Your task to perform on an android device: check out phone information Image 0: 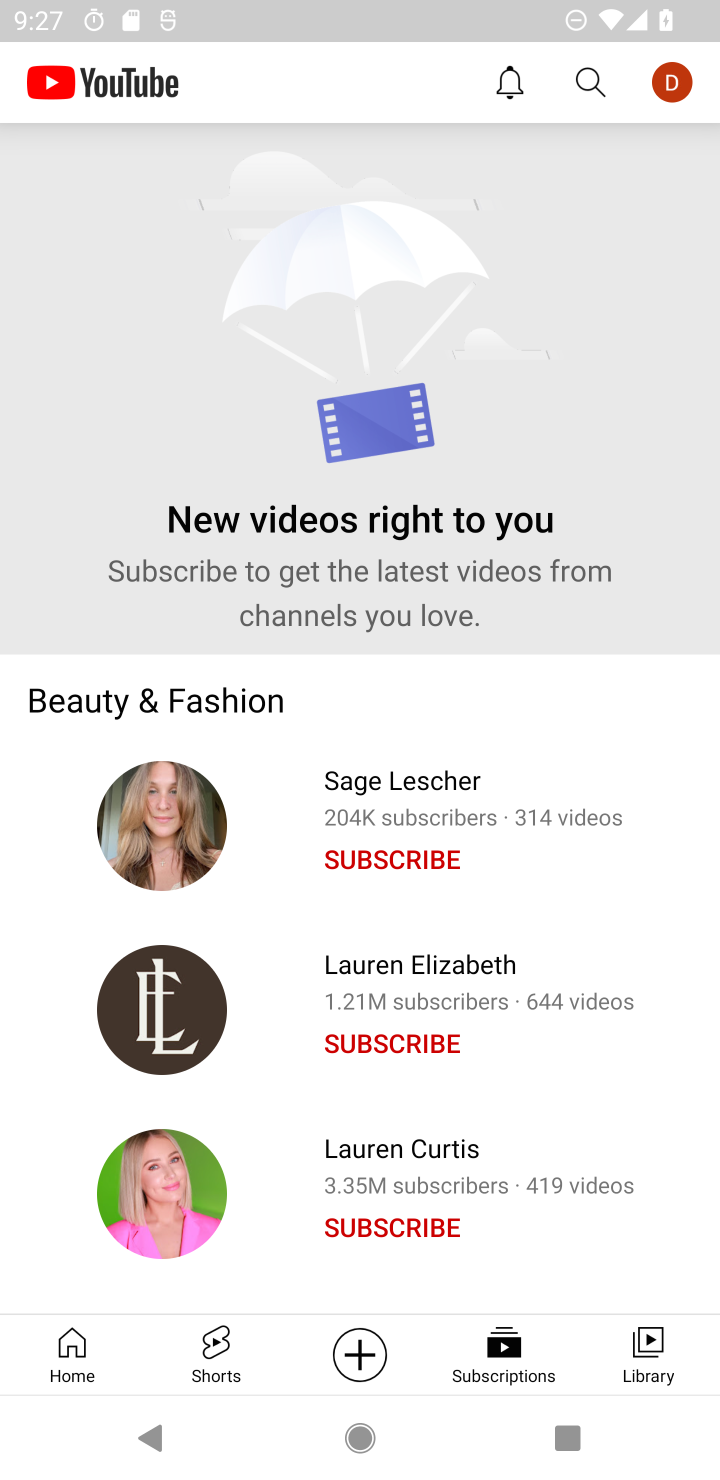
Step 0: press home button
Your task to perform on an android device: check out phone information Image 1: 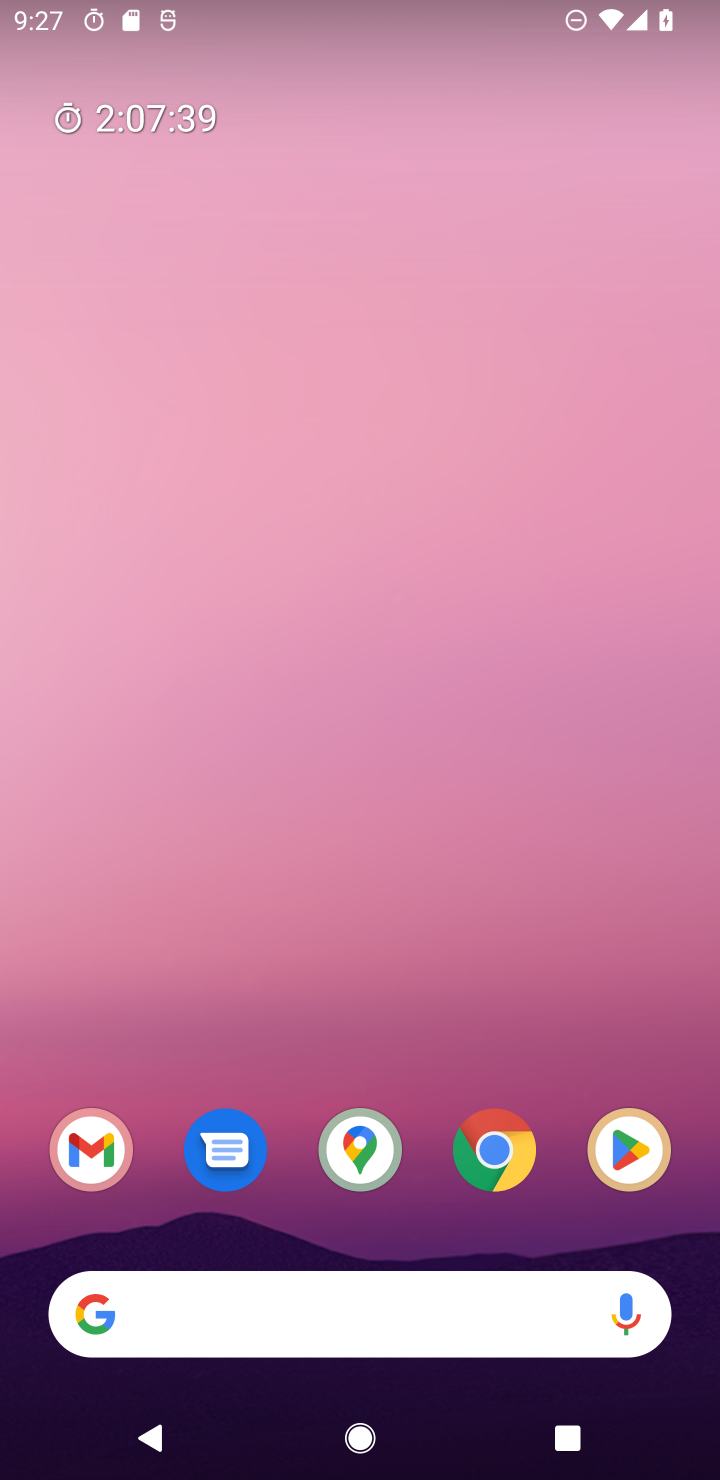
Step 1: drag from (348, 1280) to (618, 53)
Your task to perform on an android device: check out phone information Image 2: 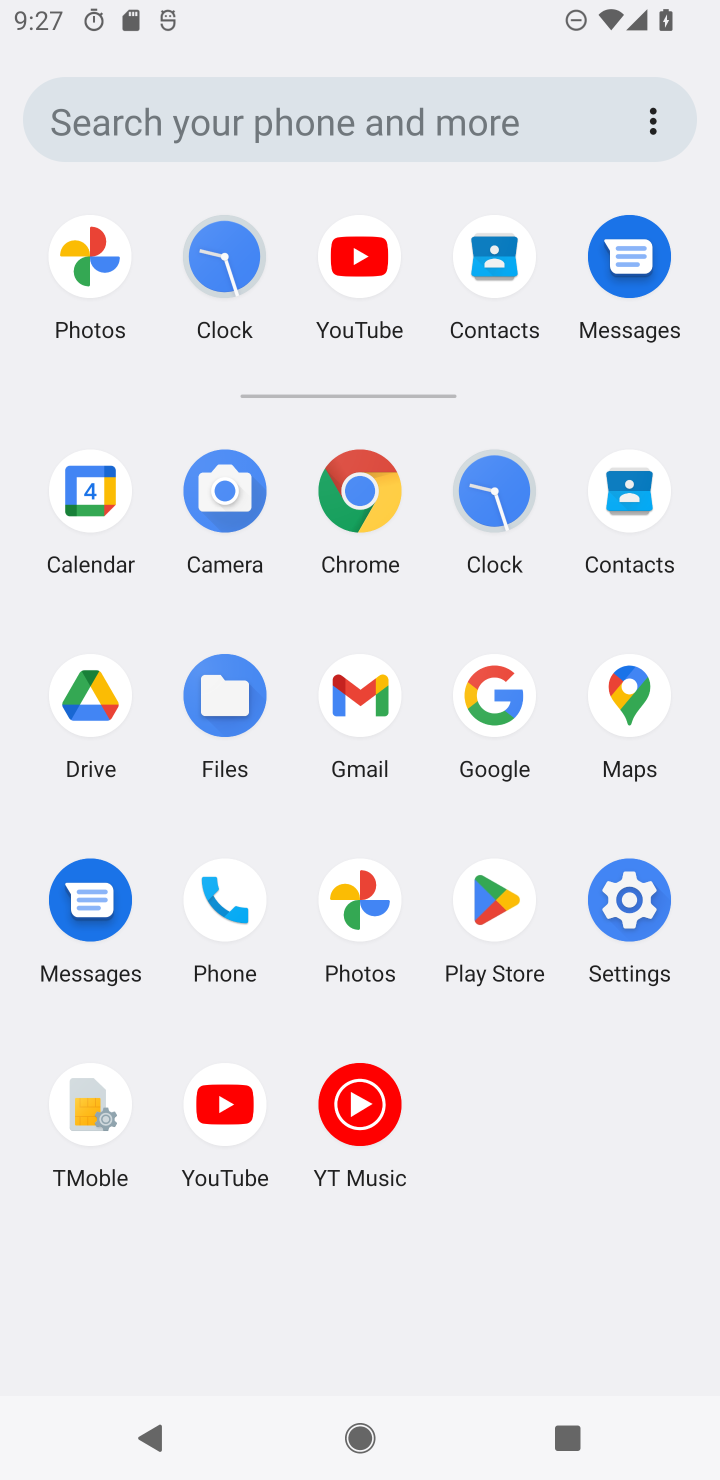
Step 2: click (617, 910)
Your task to perform on an android device: check out phone information Image 3: 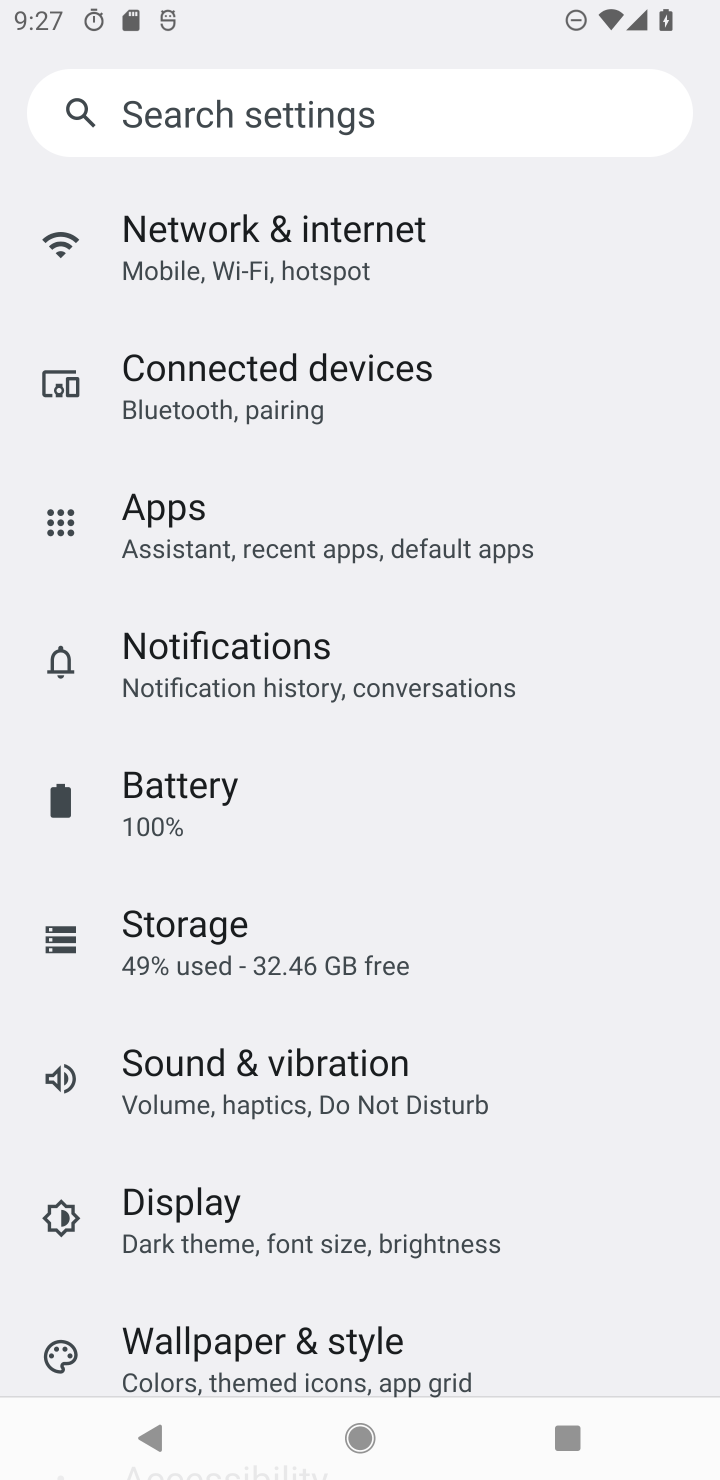
Step 3: drag from (519, 1364) to (718, 892)
Your task to perform on an android device: check out phone information Image 4: 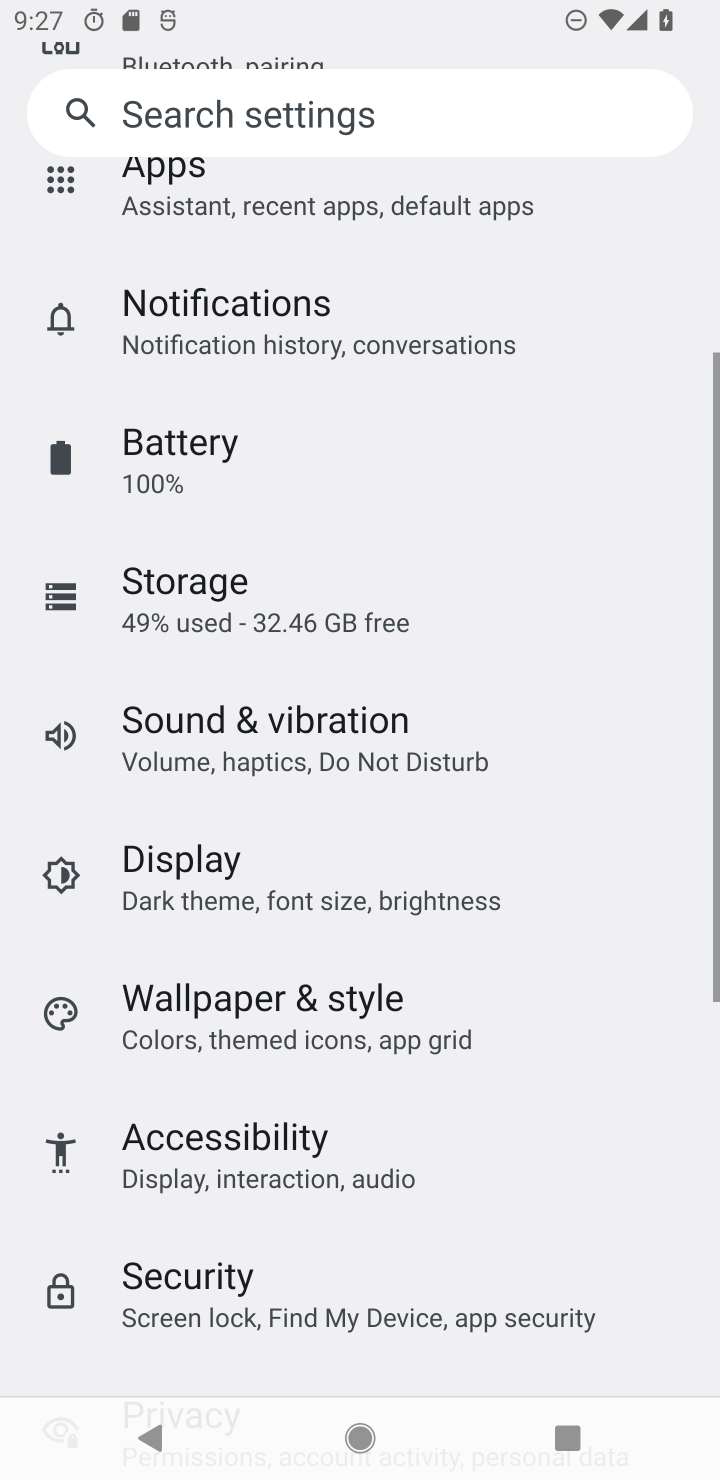
Step 4: drag from (571, 504) to (601, 330)
Your task to perform on an android device: check out phone information Image 5: 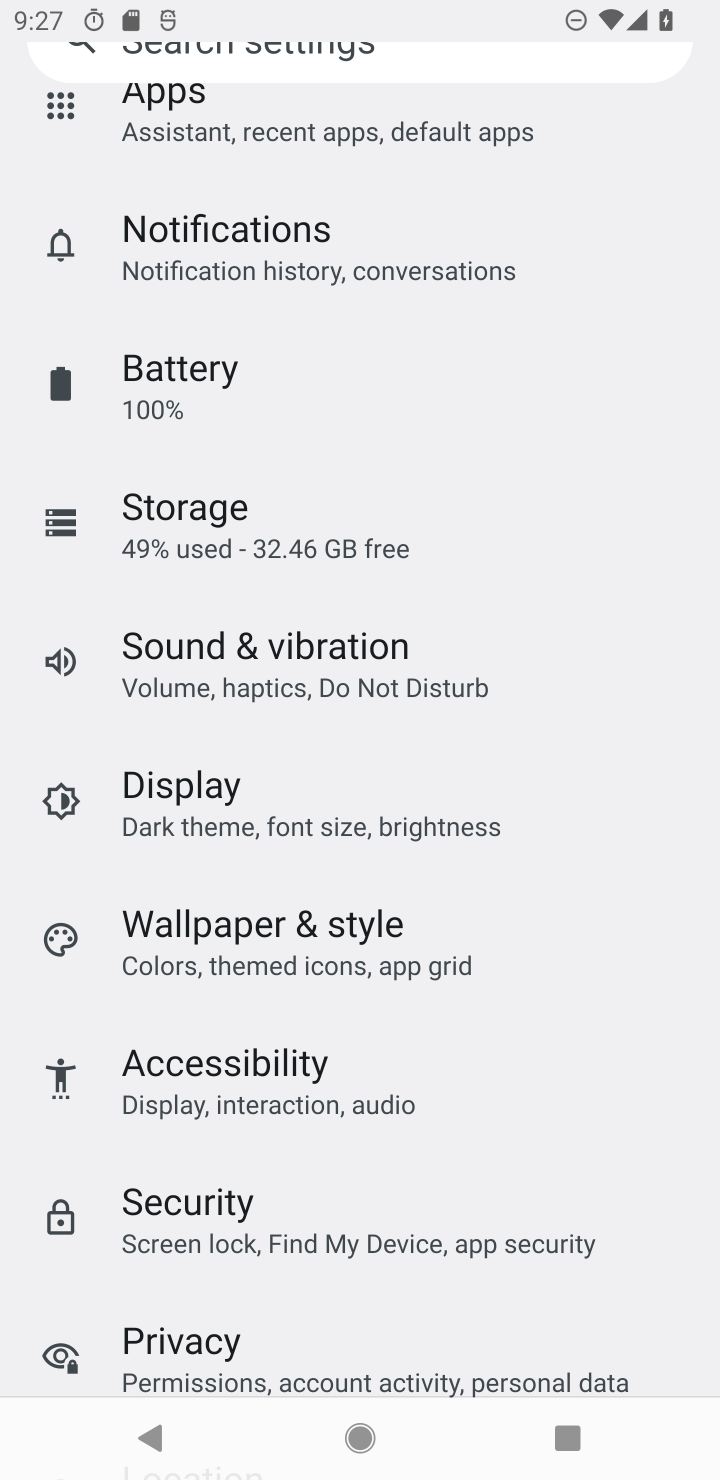
Step 5: drag from (401, 1349) to (649, 299)
Your task to perform on an android device: check out phone information Image 6: 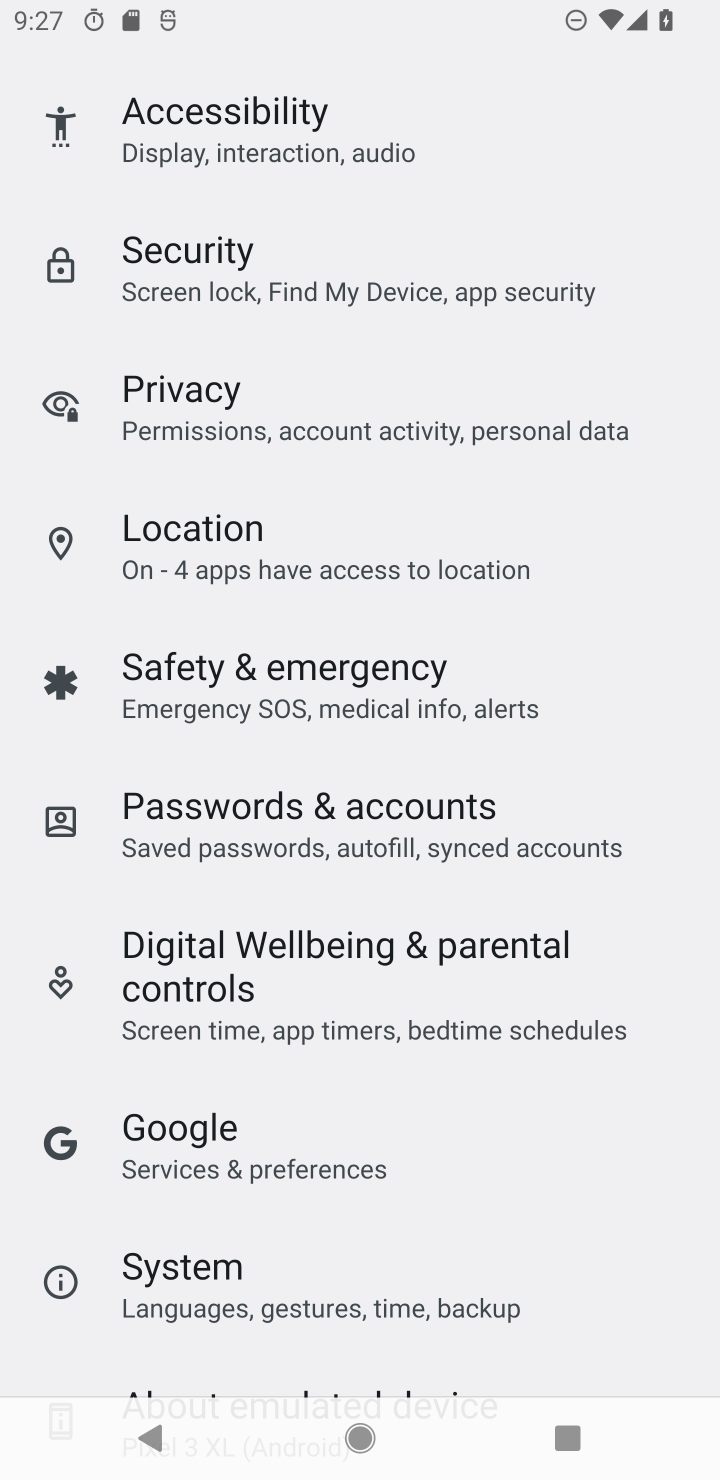
Step 6: drag from (341, 1350) to (500, 748)
Your task to perform on an android device: check out phone information Image 7: 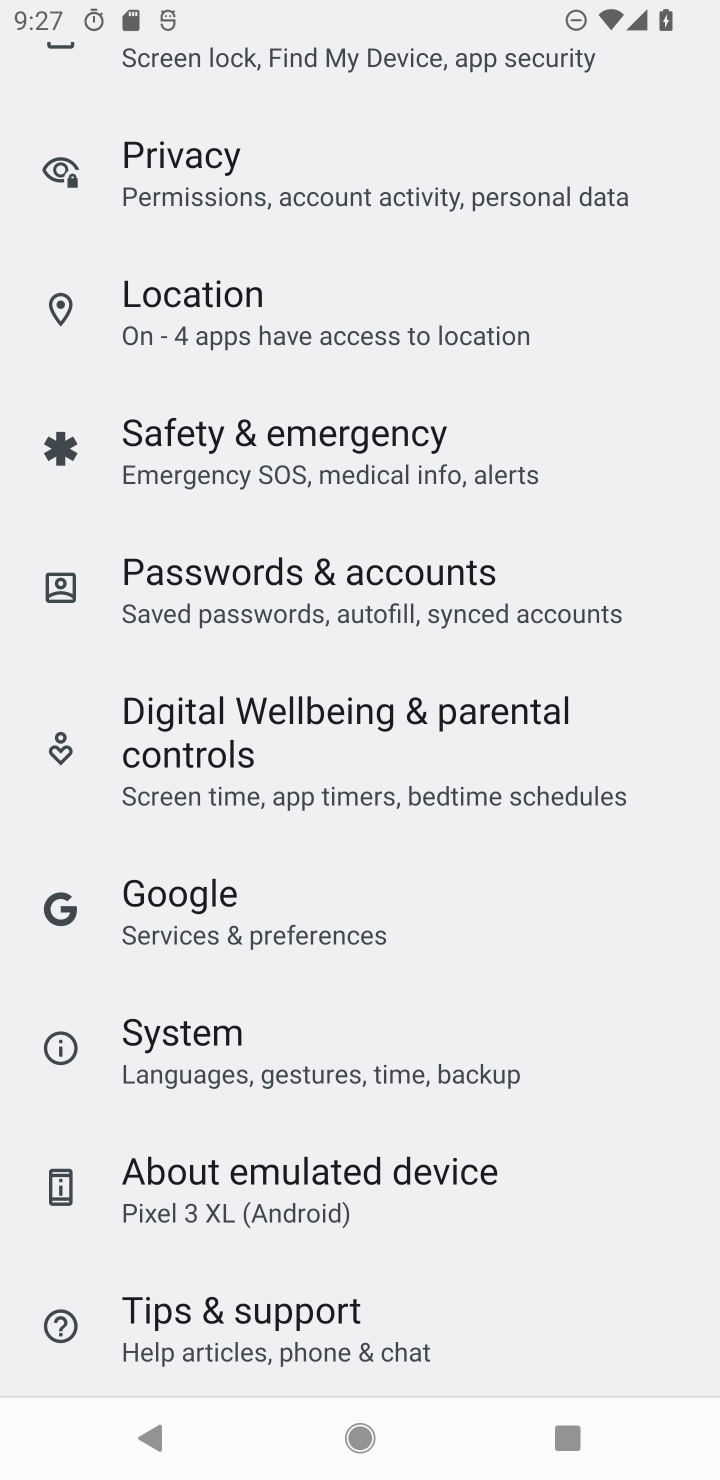
Step 7: click (306, 1179)
Your task to perform on an android device: check out phone information Image 8: 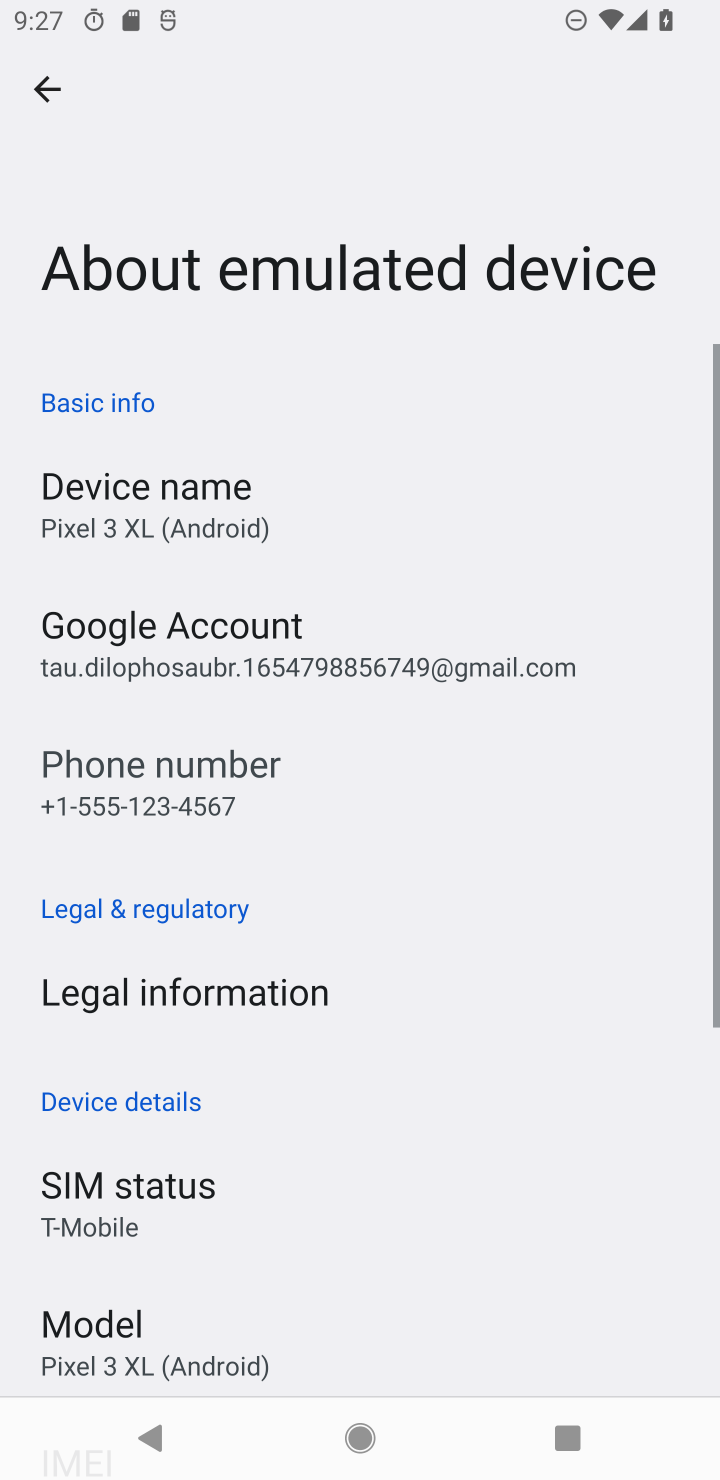
Step 8: task complete